Your task to perform on an android device: stop showing notifications on the lock screen Image 0: 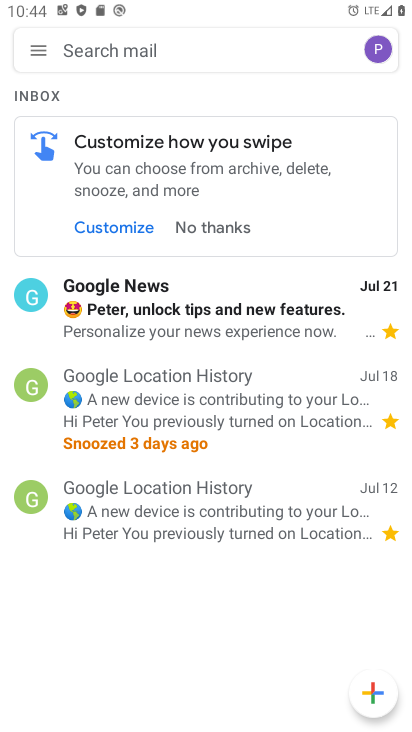
Step 0: press home button
Your task to perform on an android device: stop showing notifications on the lock screen Image 1: 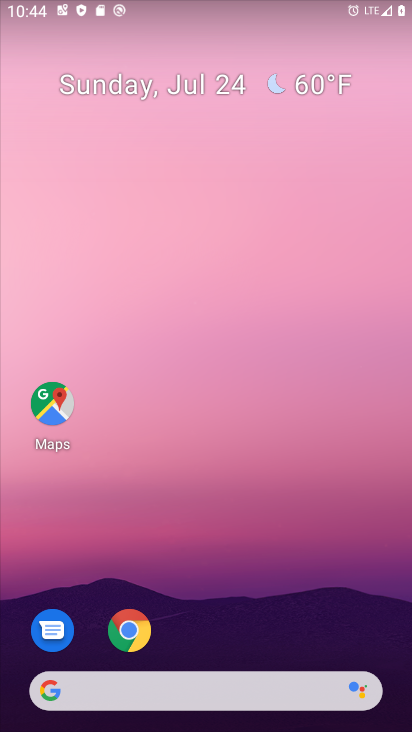
Step 1: drag from (221, 623) to (229, 77)
Your task to perform on an android device: stop showing notifications on the lock screen Image 2: 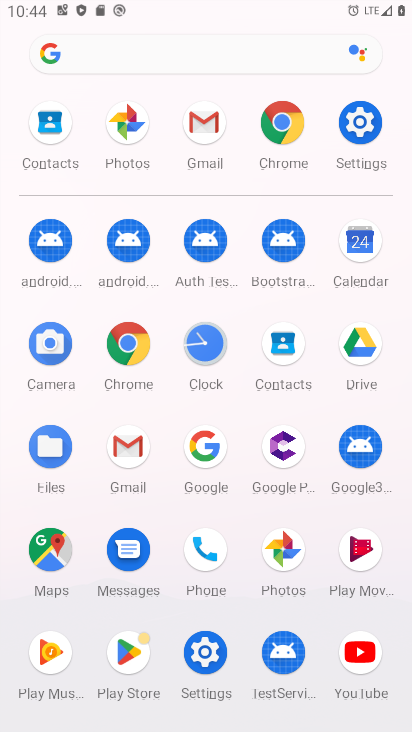
Step 2: click (208, 662)
Your task to perform on an android device: stop showing notifications on the lock screen Image 3: 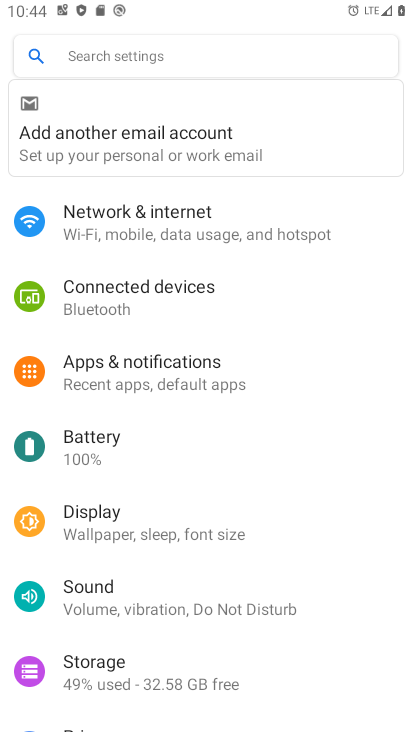
Step 3: click (177, 365)
Your task to perform on an android device: stop showing notifications on the lock screen Image 4: 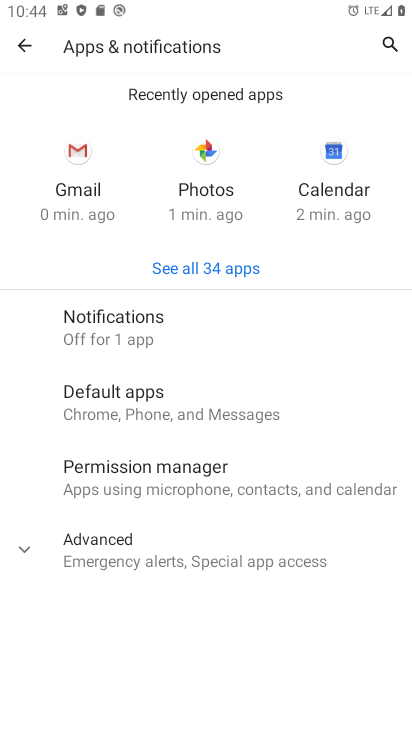
Step 4: click (142, 326)
Your task to perform on an android device: stop showing notifications on the lock screen Image 5: 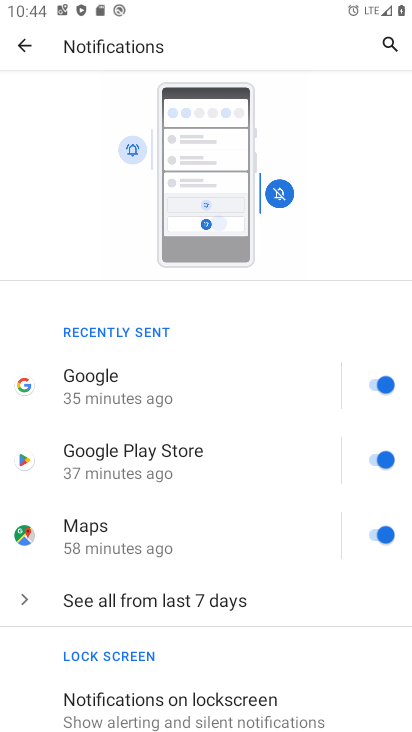
Step 5: drag from (168, 655) to (167, 414)
Your task to perform on an android device: stop showing notifications on the lock screen Image 6: 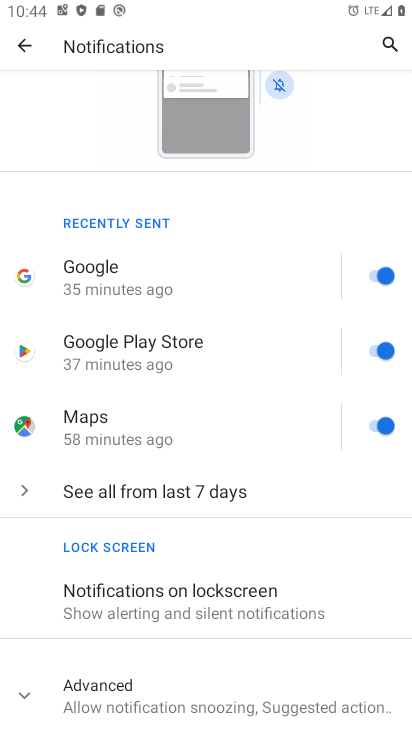
Step 6: click (142, 608)
Your task to perform on an android device: stop showing notifications on the lock screen Image 7: 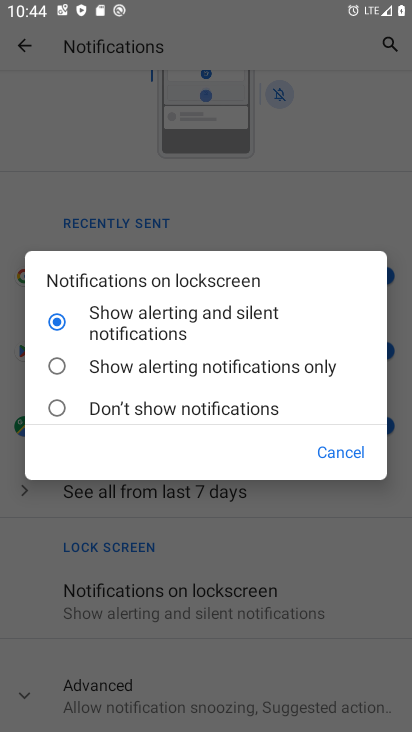
Step 7: click (96, 408)
Your task to perform on an android device: stop showing notifications on the lock screen Image 8: 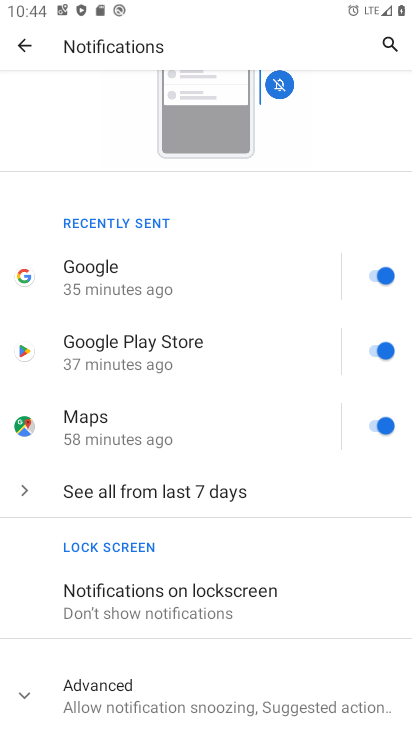
Step 8: task complete